Your task to perform on an android device: toggle sleep mode Image 0: 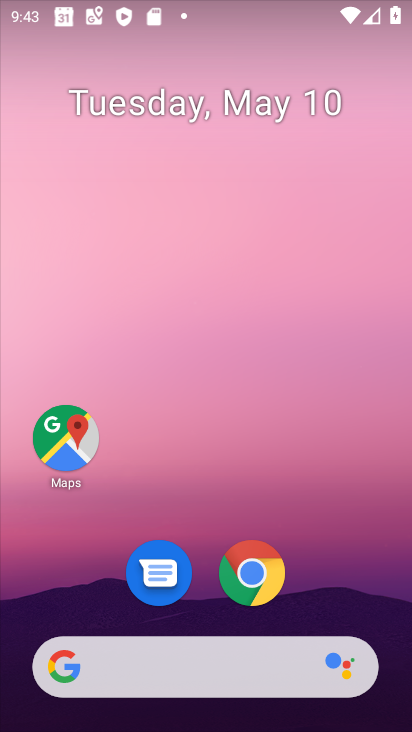
Step 0: drag from (328, 581) to (179, 92)
Your task to perform on an android device: toggle sleep mode Image 1: 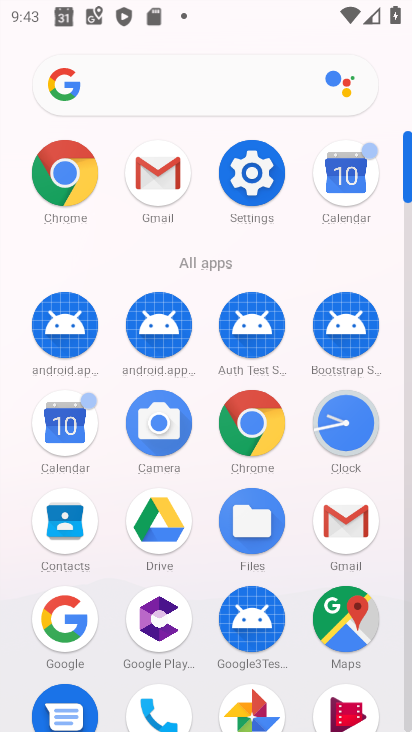
Step 1: click (254, 171)
Your task to perform on an android device: toggle sleep mode Image 2: 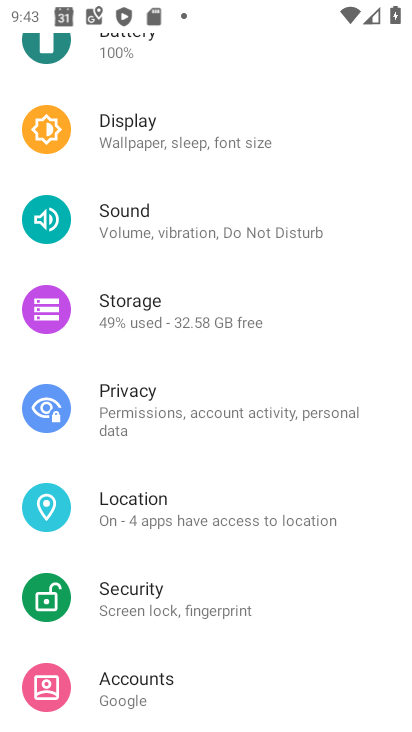
Step 2: click (111, 148)
Your task to perform on an android device: toggle sleep mode Image 3: 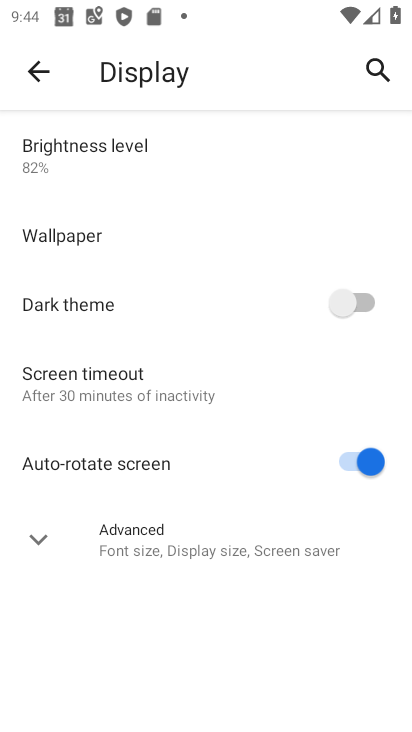
Step 3: task complete